Your task to perform on an android device: Go to CNN.com Image 0: 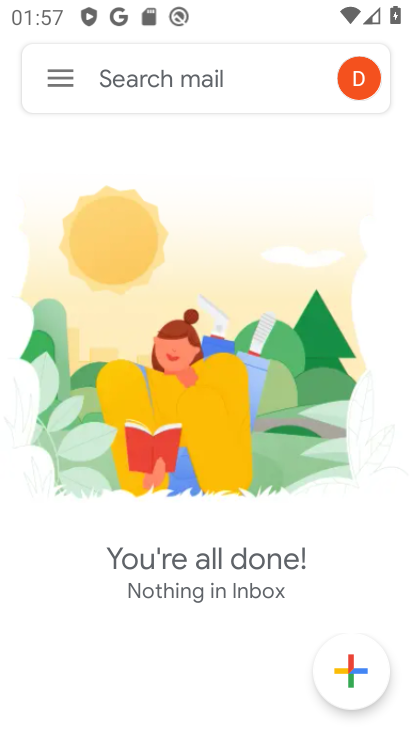
Step 0: press home button
Your task to perform on an android device: Go to CNN.com Image 1: 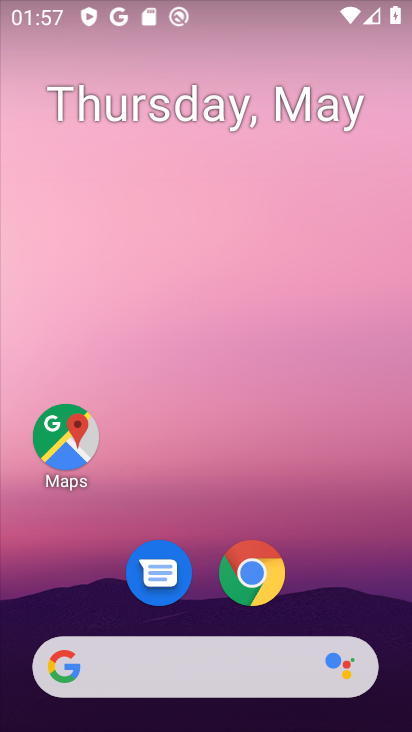
Step 1: click (238, 550)
Your task to perform on an android device: Go to CNN.com Image 2: 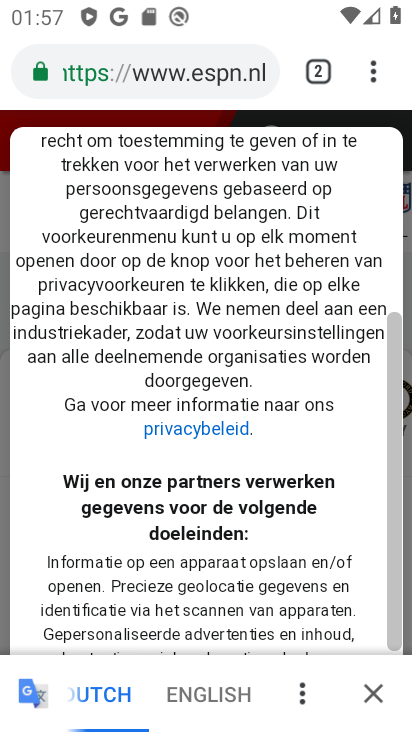
Step 2: click (368, 72)
Your task to perform on an android device: Go to CNN.com Image 3: 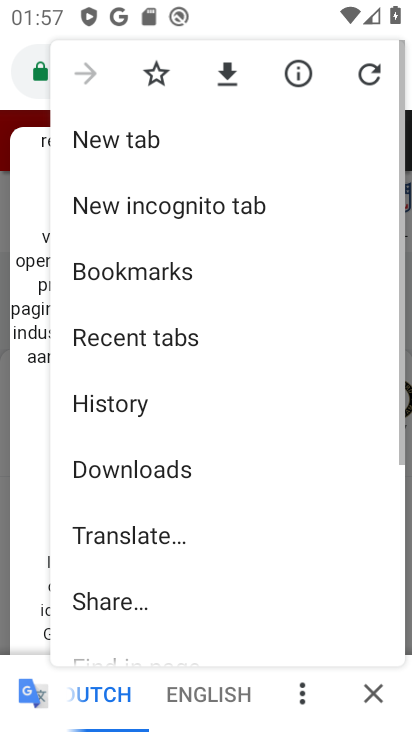
Step 3: click (127, 132)
Your task to perform on an android device: Go to CNN.com Image 4: 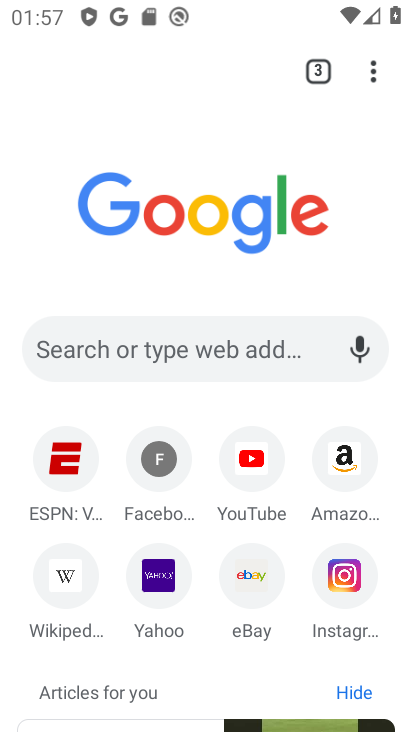
Step 4: click (130, 333)
Your task to perform on an android device: Go to CNN.com Image 5: 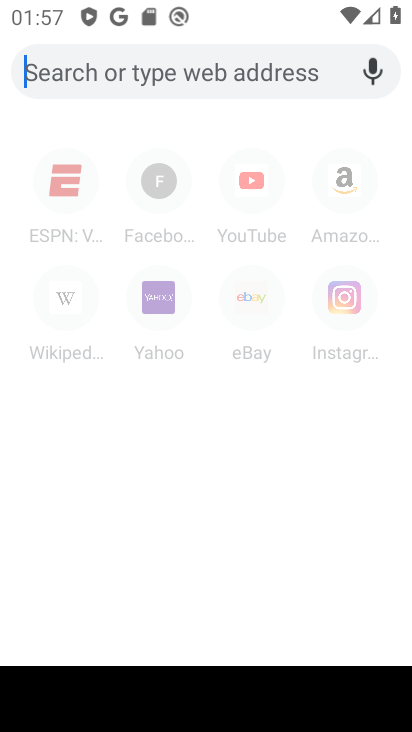
Step 5: type "CNN.com"
Your task to perform on an android device: Go to CNN.com Image 6: 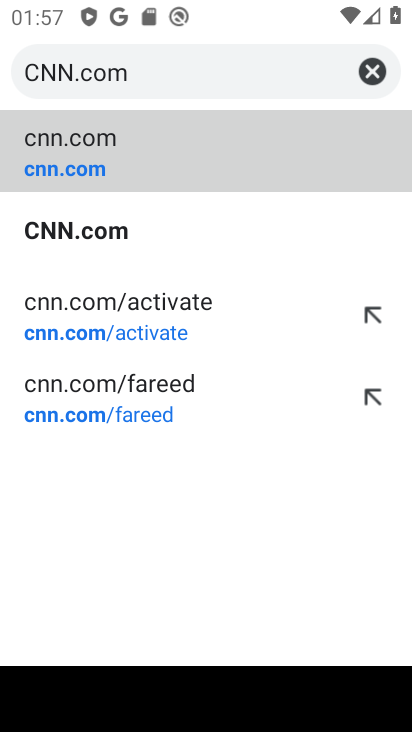
Step 6: click (167, 149)
Your task to perform on an android device: Go to CNN.com Image 7: 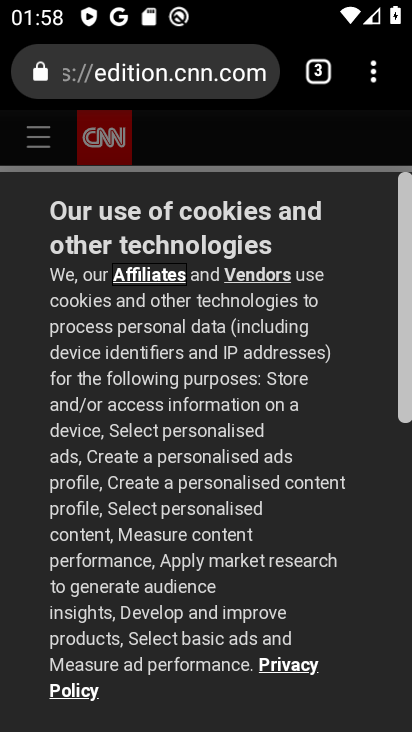
Step 7: task complete